Your task to perform on an android device: Go to battery settings Image 0: 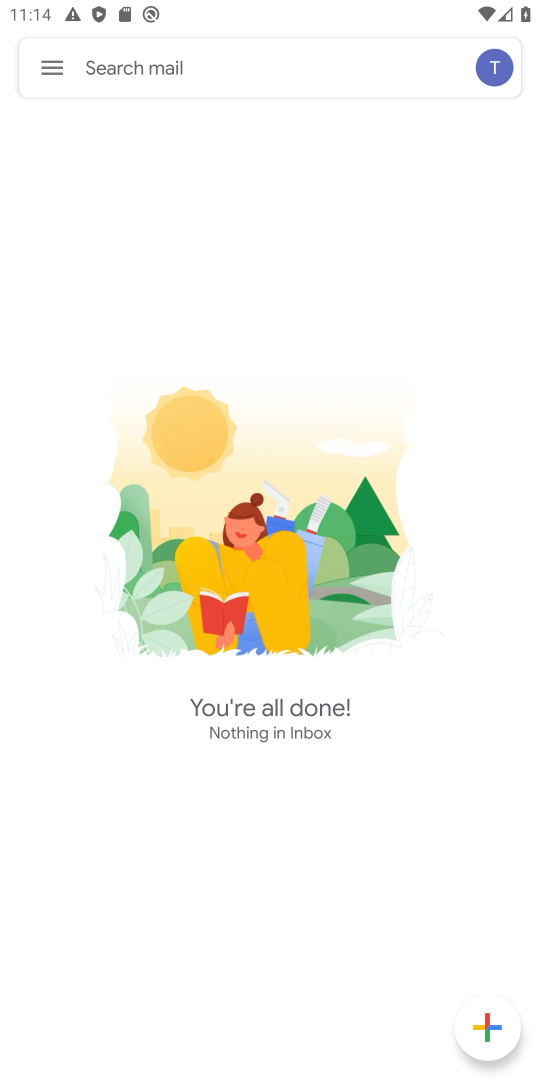
Step 0: press home button
Your task to perform on an android device: Go to battery settings Image 1: 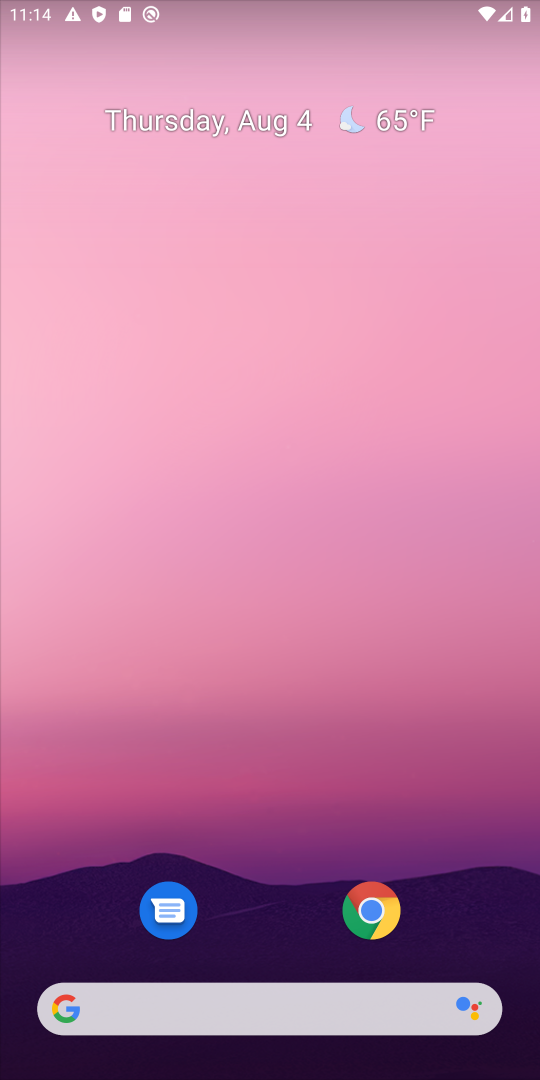
Step 1: drag from (277, 965) to (345, 296)
Your task to perform on an android device: Go to battery settings Image 2: 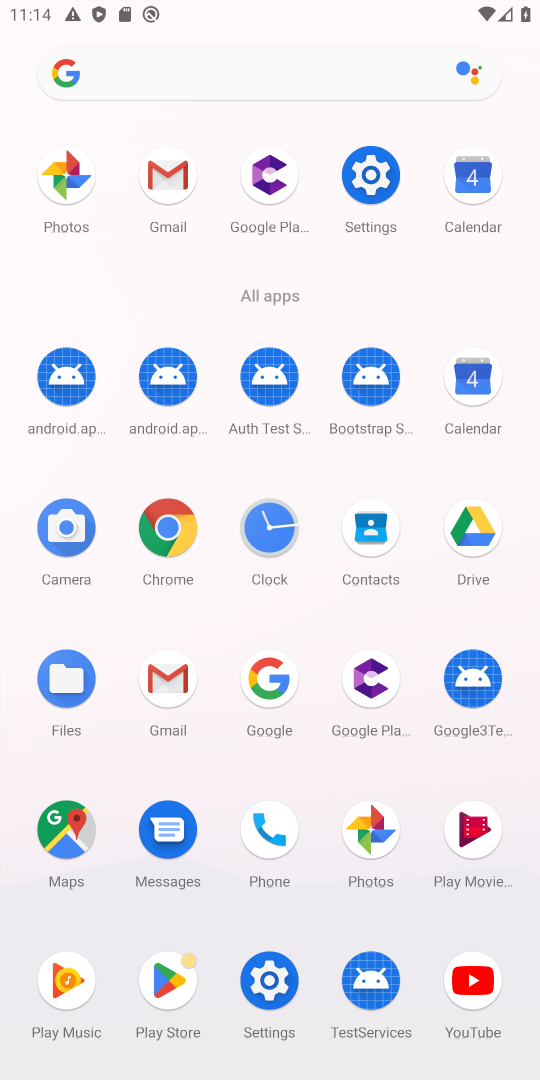
Step 2: click (355, 172)
Your task to perform on an android device: Go to battery settings Image 3: 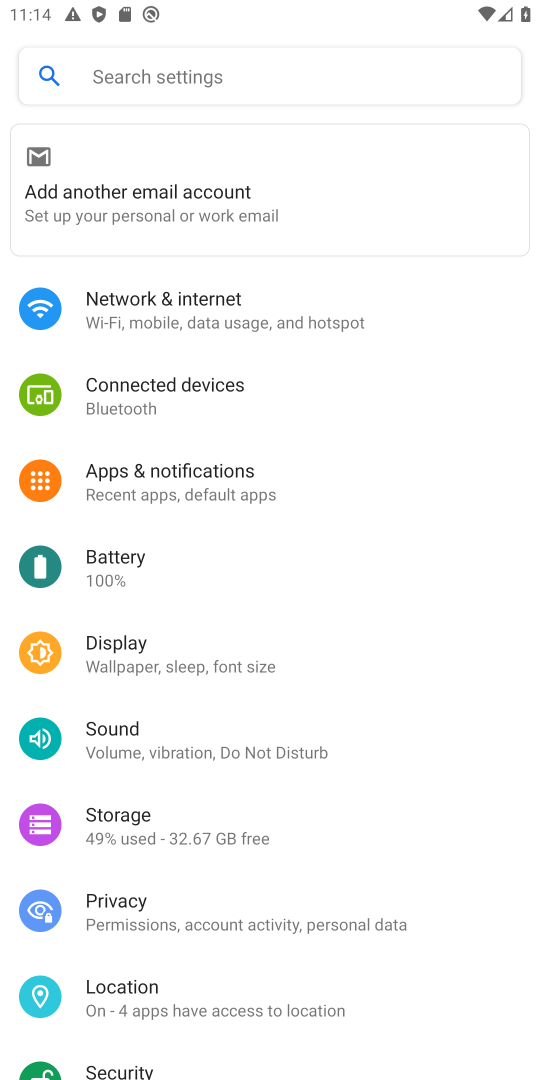
Step 3: click (134, 585)
Your task to perform on an android device: Go to battery settings Image 4: 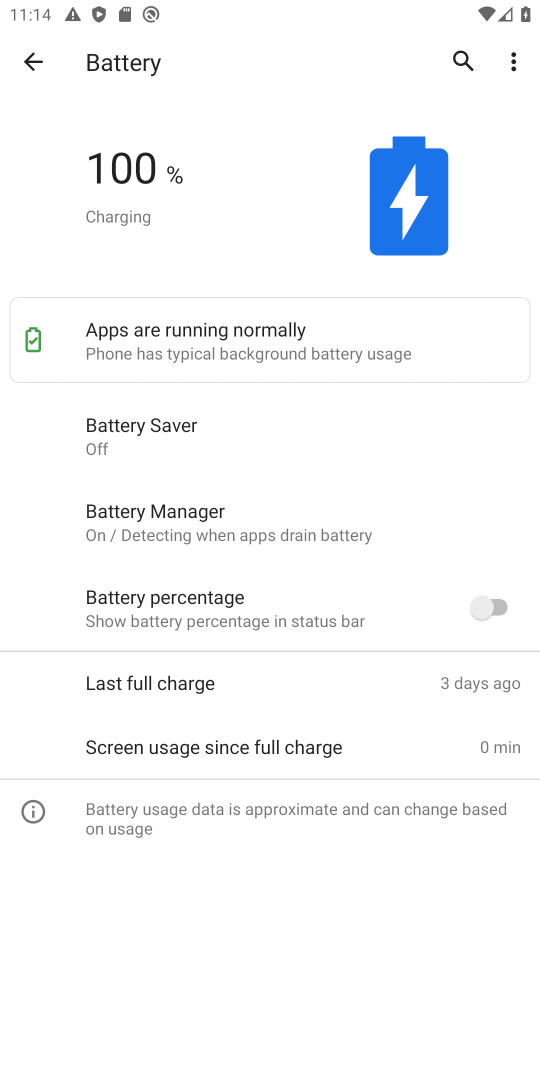
Step 4: task complete